Your task to perform on an android device: Is it going to rain today? Image 0: 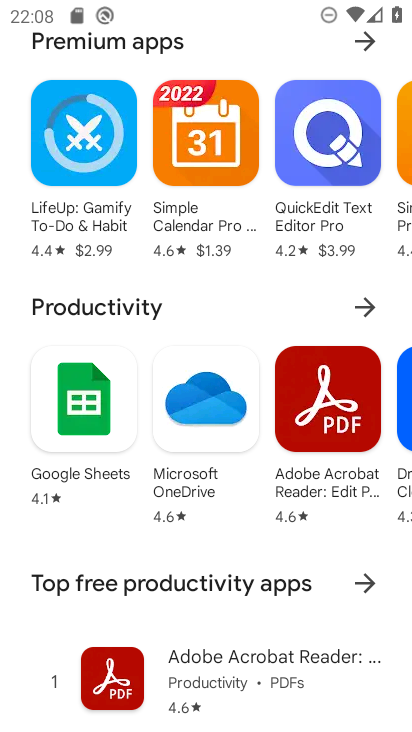
Step 0: press home button
Your task to perform on an android device: Is it going to rain today? Image 1: 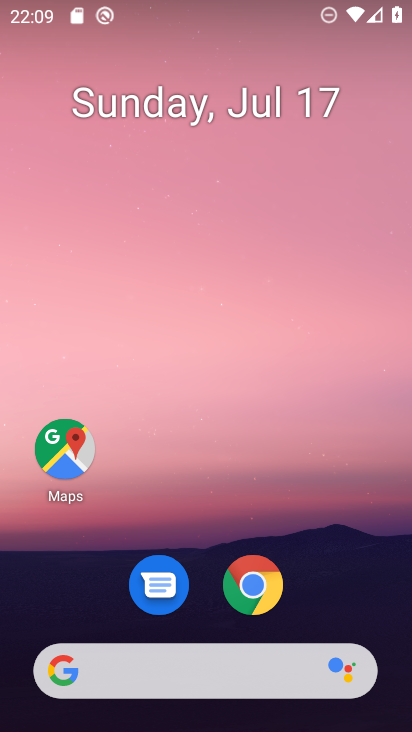
Step 1: click (164, 673)
Your task to perform on an android device: Is it going to rain today? Image 2: 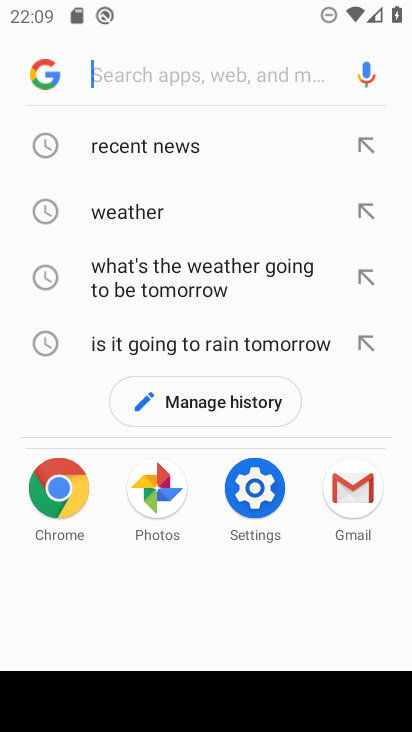
Step 2: click (147, 225)
Your task to perform on an android device: Is it going to rain today? Image 3: 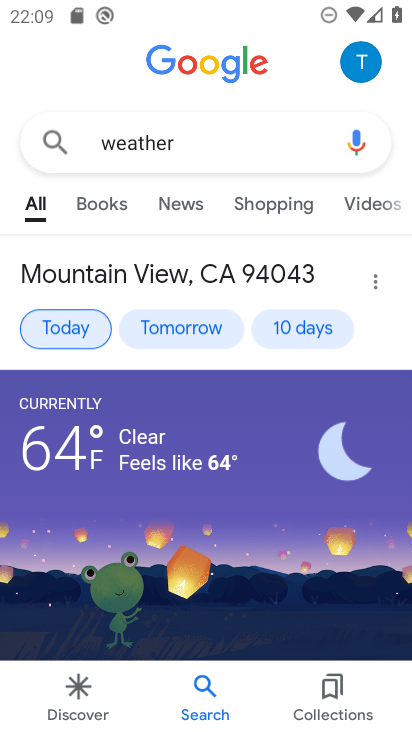
Step 3: task complete